Your task to perform on an android device: change notification settings in the gmail app Image 0: 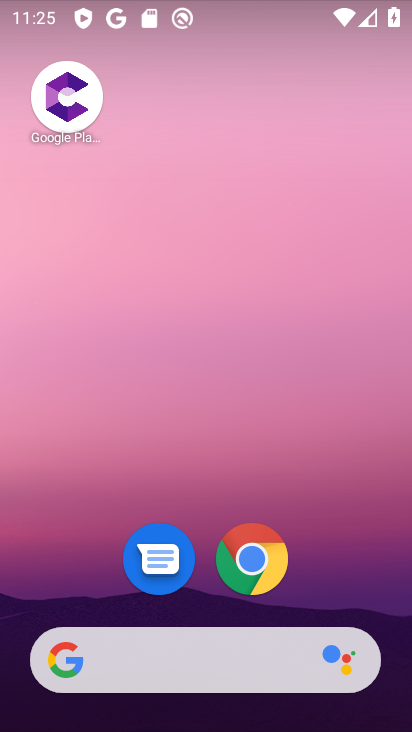
Step 0: drag from (215, 586) to (267, 0)
Your task to perform on an android device: change notification settings in the gmail app Image 1: 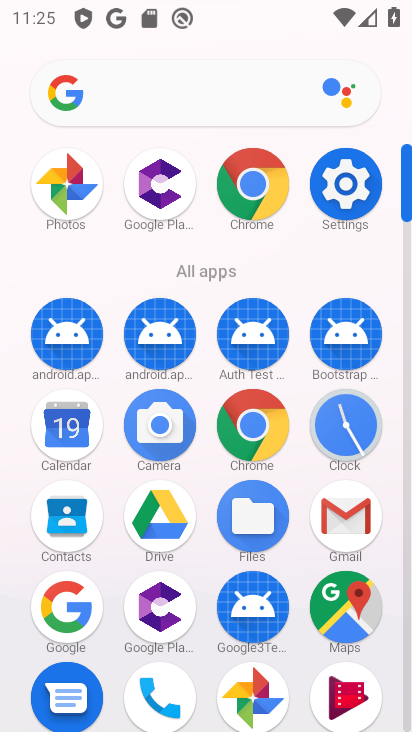
Step 1: click (331, 521)
Your task to perform on an android device: change notification settings in the gmail app Image 2: 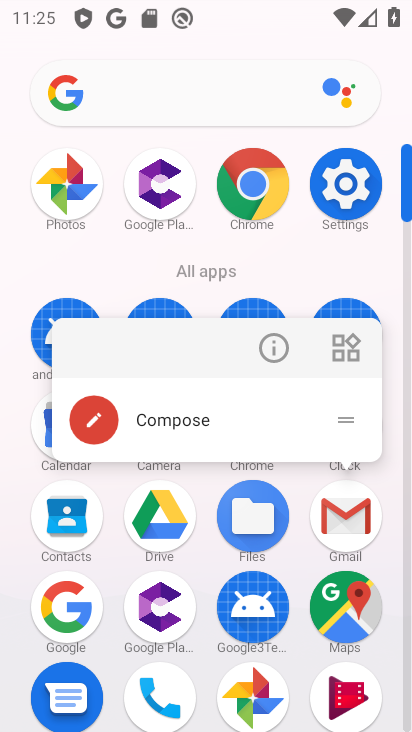
Step 2: click (276, 345)
Your task to perform on an android device: change notification settings in the gmail app Image 3: 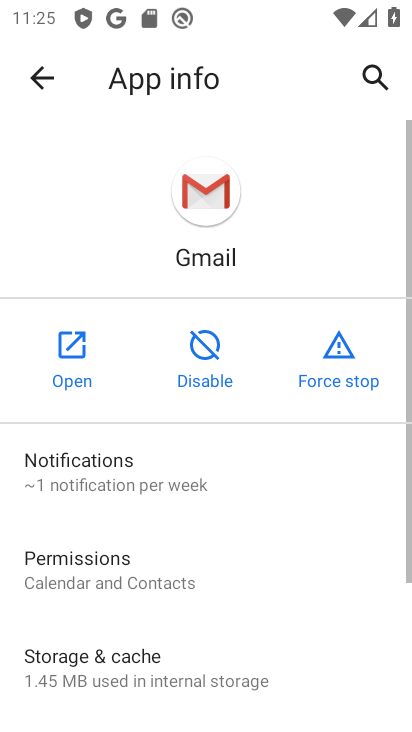
Step 3: click (150, 472)
Your task to perform on an android device: change notification settings in the gmail app Image 4: 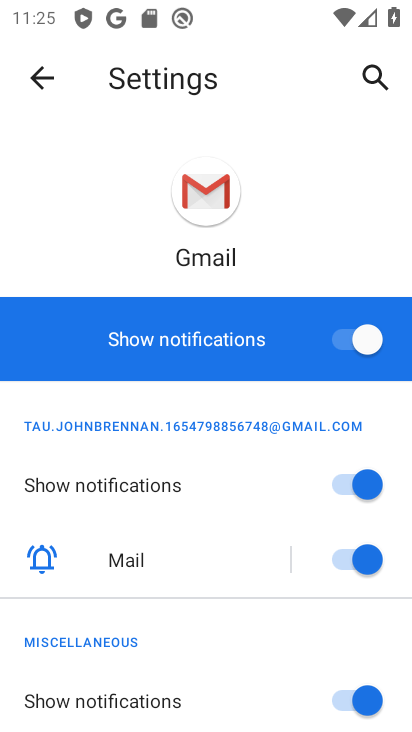
Step 4: click (372, 483)
Your task to perform on an android device: change notification settings in the gmail app Image 5: 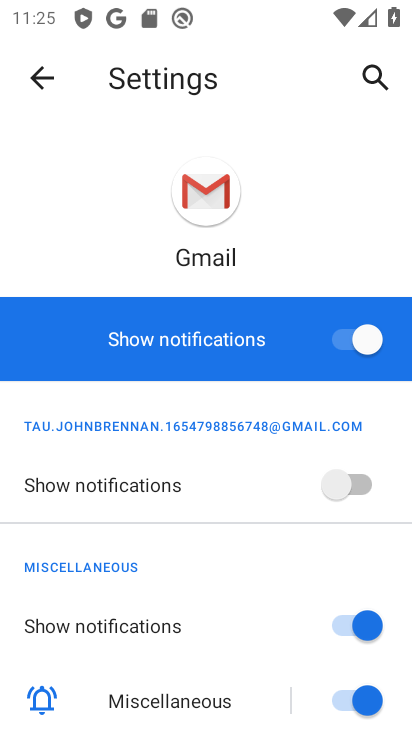
Step 5: task complete